Your task to perform on an android device: turn on location history Image 0: 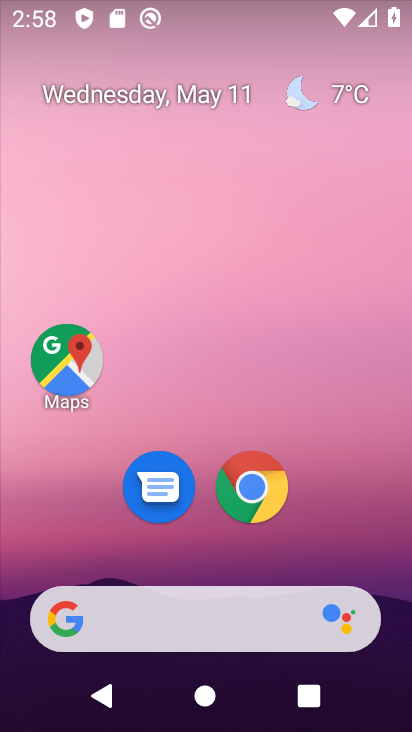
Step 0: drag from (254, 572) to (298, 152)
Your task to perform on an android device: turn on location history Image 1: 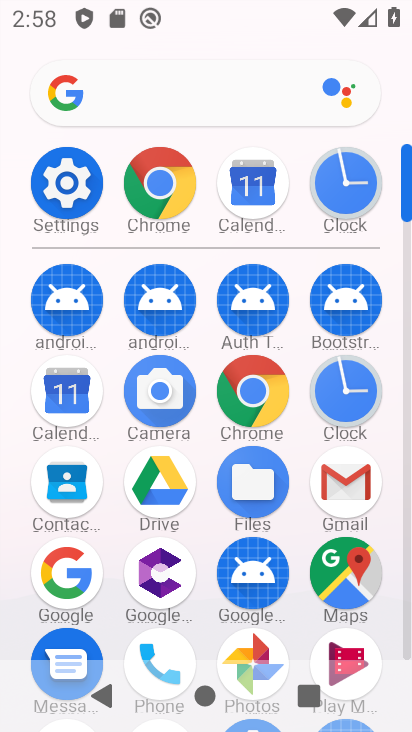
Step 1: click (70, 189)
Your task to perform on an android device: turn on location history Image 2: 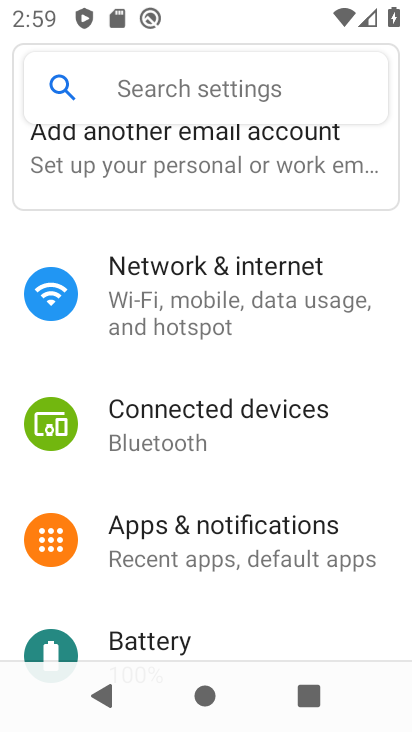
Step 2: drag from (267, 625) to (279, 154)
Your task to perform on an android device: turn on location history Image 3: 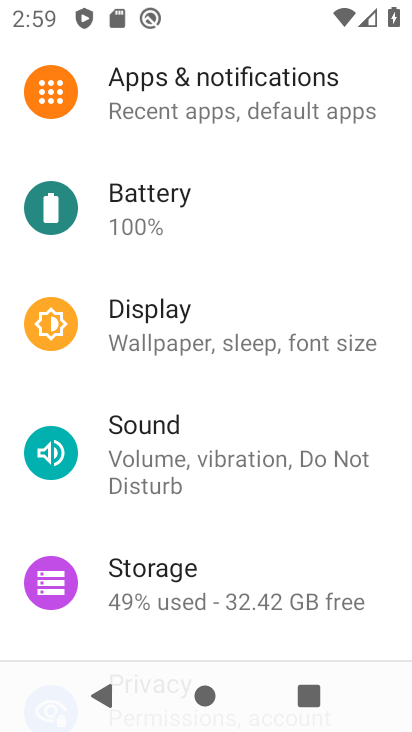
Step 3: drag from (241, 632) to (258, 184)
Your task to perform on an android device: turn on location history Image 4: 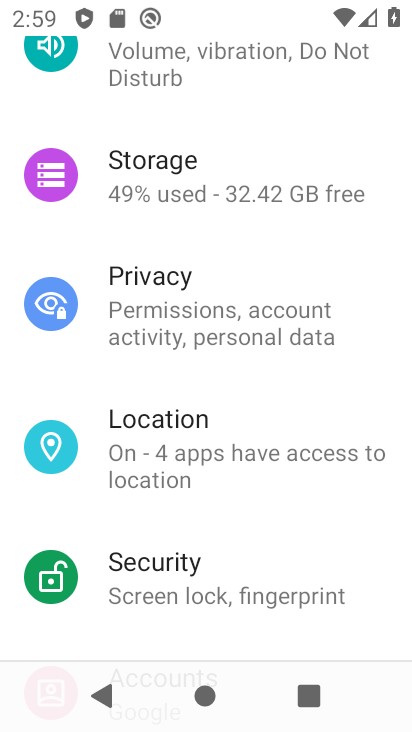
Step 4: click (236, 460)
Your task to perform on an android device: turn on location history Image 5: 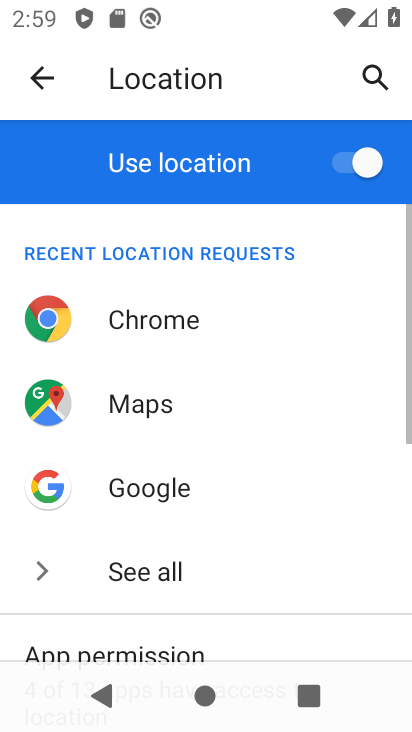
Step 5: drag from (271, 636) to (287, 251)
Your task to perform on an android device: turn on location history Image 6: 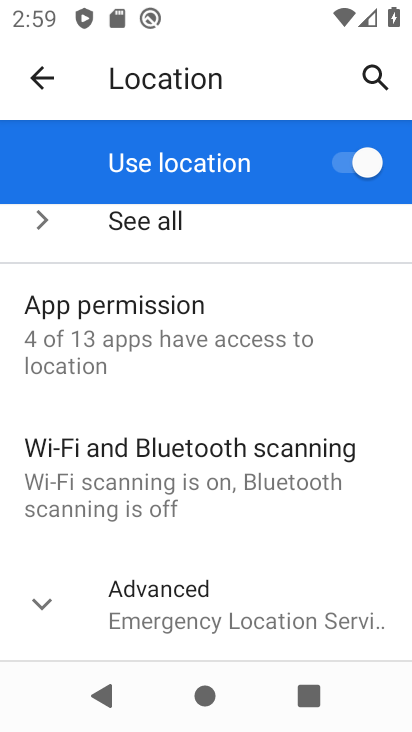
Step 6: drag from (268, 653) to (279, 375)
Your task to perform on an android device: turn on location history Image 7: 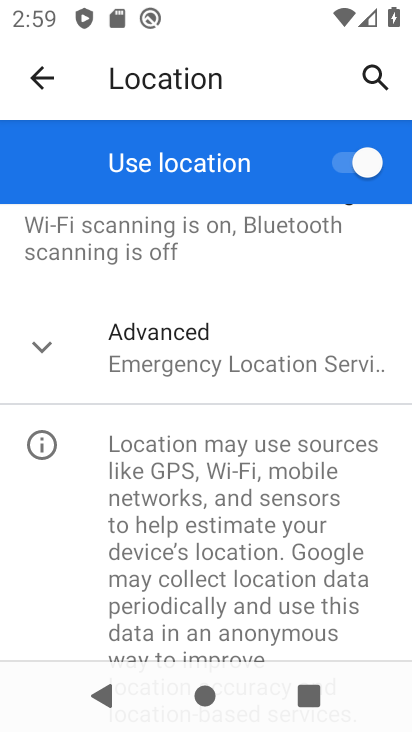
Step 7: click (210, 355)
Your task to perform on an android device: turn on location history Image 8: 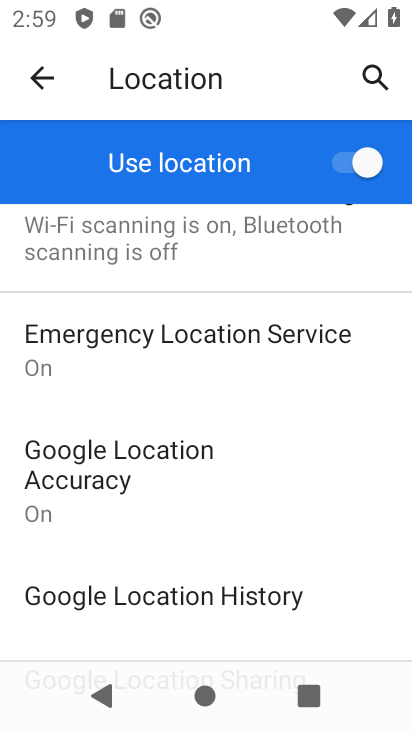
Step 8: click (237, 606)
Your task to perform on an android device: turn on location history Image 9: 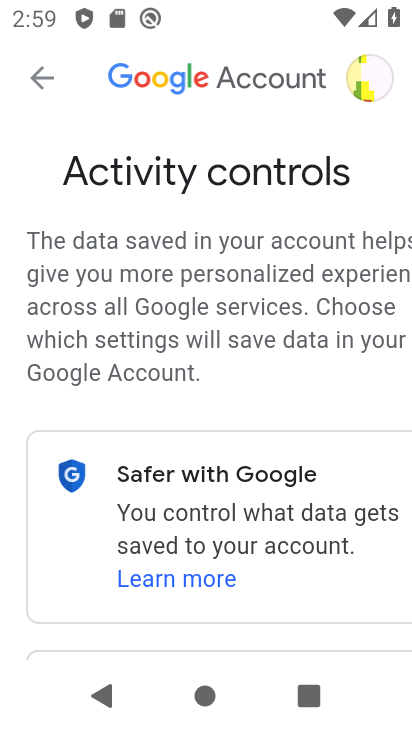
Step 9: task complete